Your task to perform on an android device: Open battery settings Image 0: 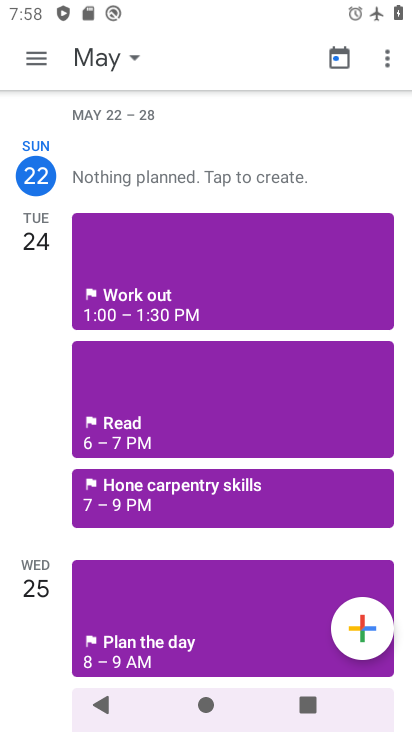
Step 0: press back button
Your task to perform on an android device: Open battery settings Image 1: 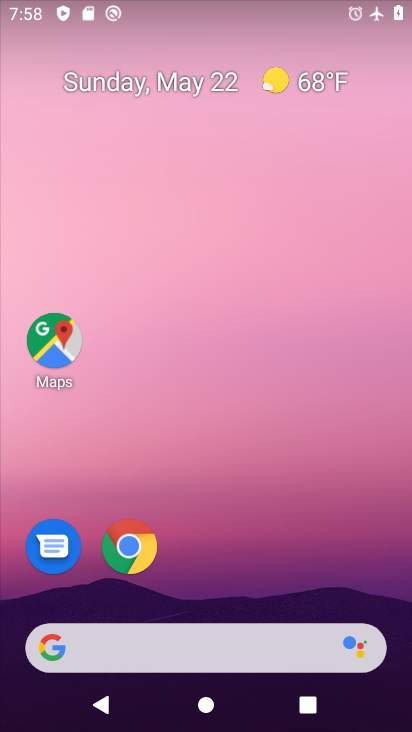
Step 1: task complete